Your task to perform on an android device: turn off javascript in the chrome app Image 0: 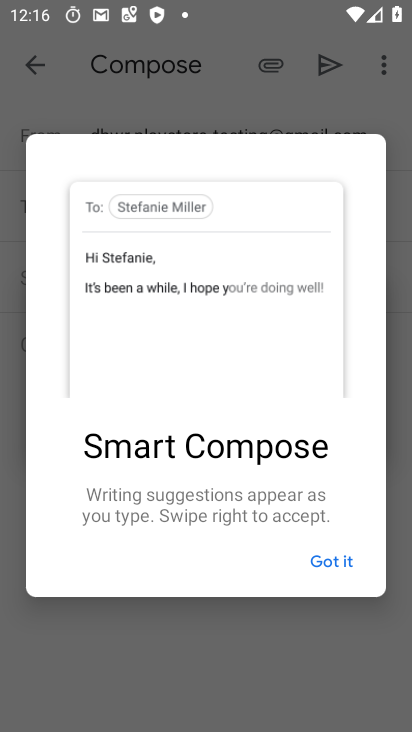
Step 0: press home button
Your task to perform on an android device: turn off javascript in the chrome app Image 1: 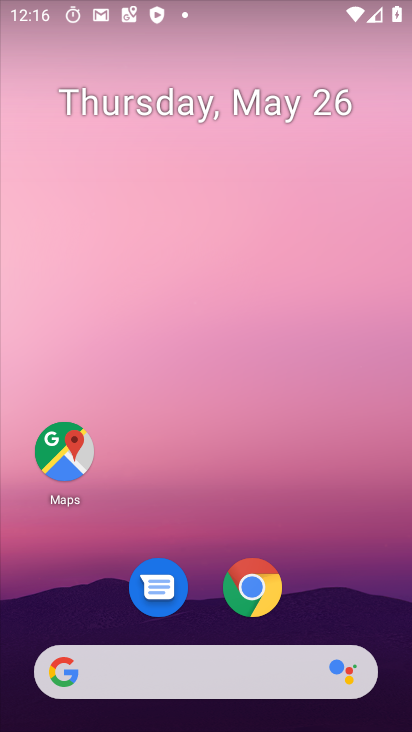
Step 1: drag from (203, 696) to (321, 220)
Your task to perform on an android device: turn off javascript in the chrome app Image 2: 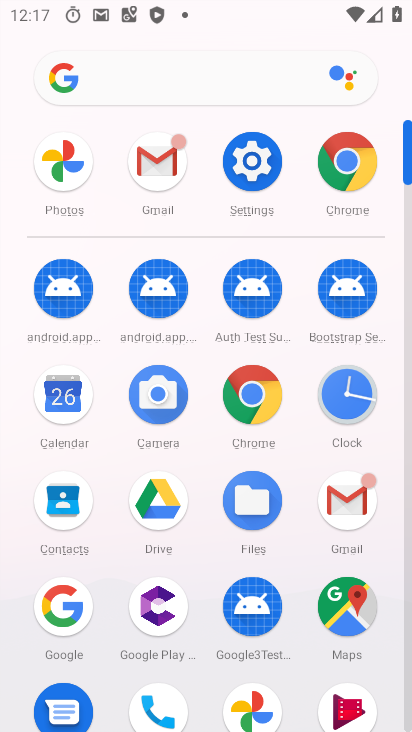
Step 2: click (353, 157)
Your task to perform on an android device: turn off javascript in the chrome app Image 3: 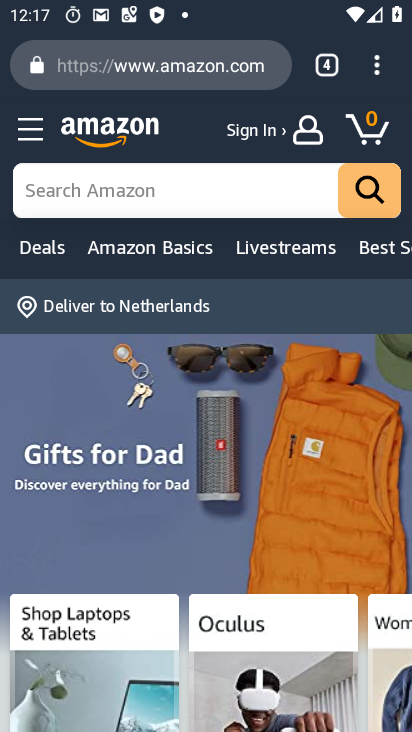
Step 3: click (374, 62)
Your task to perform on an android device: turn off javascript in the chrome app Image 4: 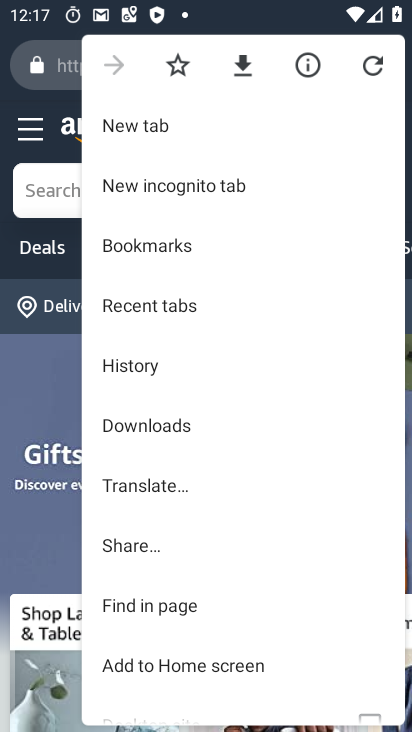
Step 4: drag from (216, 671) to (252, 458)
Your task to perform on an android device: turn off javascript in the chrome app Image 5: 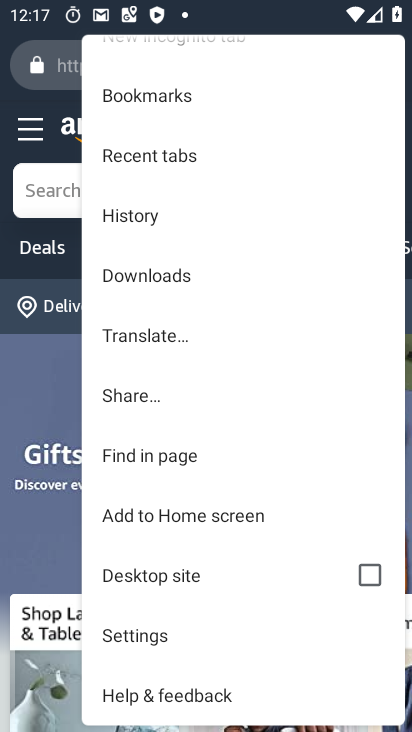
Step 5: click (184, 630)
Your task to perform on an android device: turn off javascript in the chrome app Image 6: 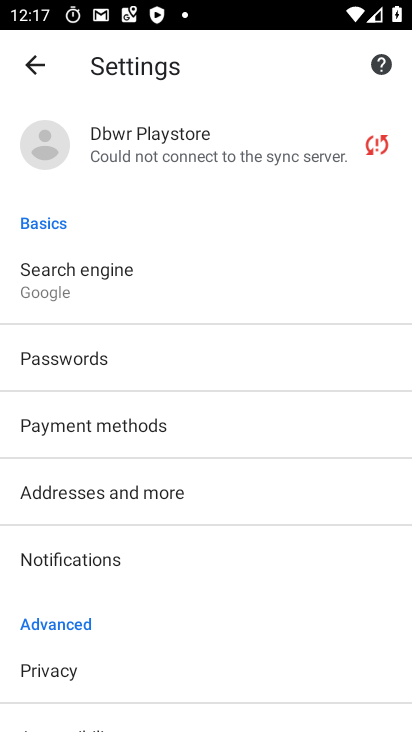
Step 6: drag from (165, 636) to (169, 372)
Your task to perform on an android device: turn off javascript in the chrome app Image 7: 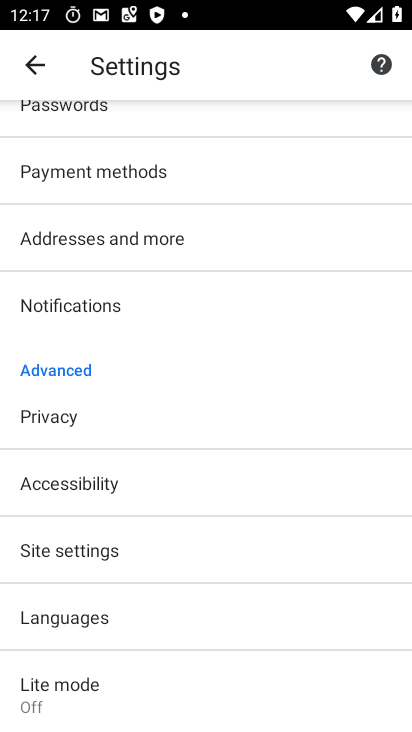
Step 7: click (105, 562)
Your task to perform on an android device: turn off javascript in the chrome app Image 8: 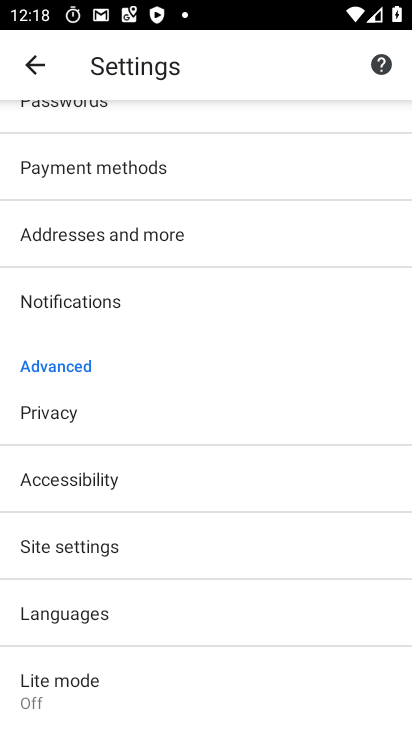
Step 8: click (114, 549)
Your task to perform on an android device: turn off javascript in the chrome app Image 9: 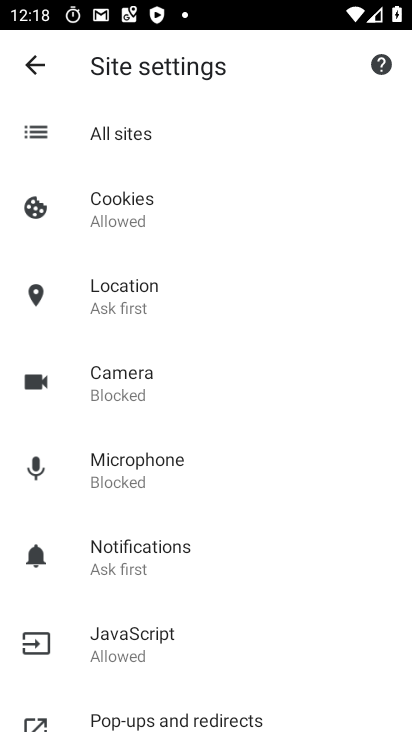
Step 9: click (168, 630)
Your task to perform on an android device: turn off javascript in the chrome app Image 10: 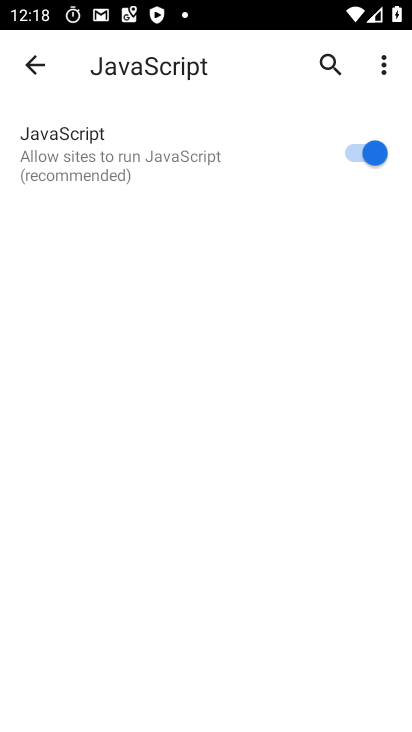
Step 10: click (357, 152)
Your task to perform on an android device: turn off javascript in the chrome app Image 11: 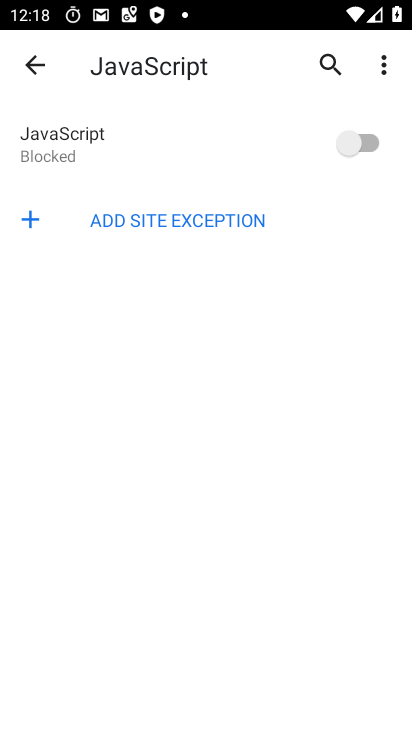
Step 11: task complete